Your task to perform on an android device: empty trash in the gmail app Image 0: 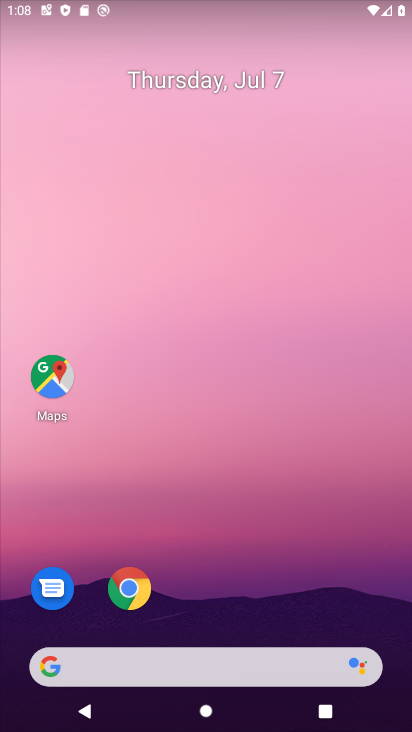
Step 0: drag from (179, 651) to (184, 254)
Your task to perform on an android device: empty trash in the gmail app Image 1: 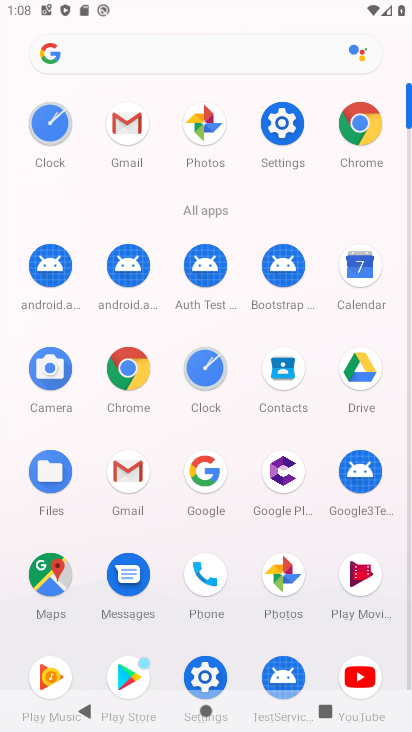
Step 1: click (134, 115)
Your task to perform on an android device: empty trash in the gmail app Image 2: 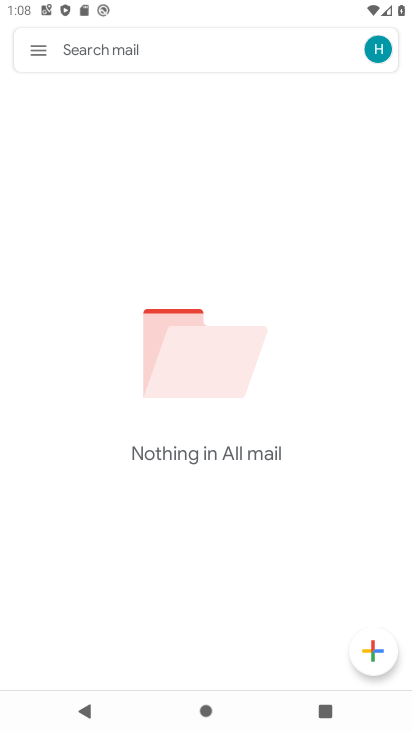
Step 2: click (29, 43)
Your task to perform on an android device: empty trash in the gmail app Image 3: 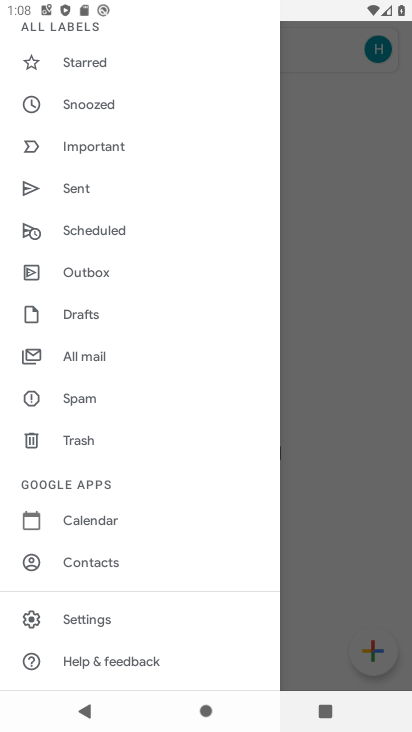
Step 3: click (100, 437)
Your task to perform on an android device: empty trash in the gmail app Image 4: 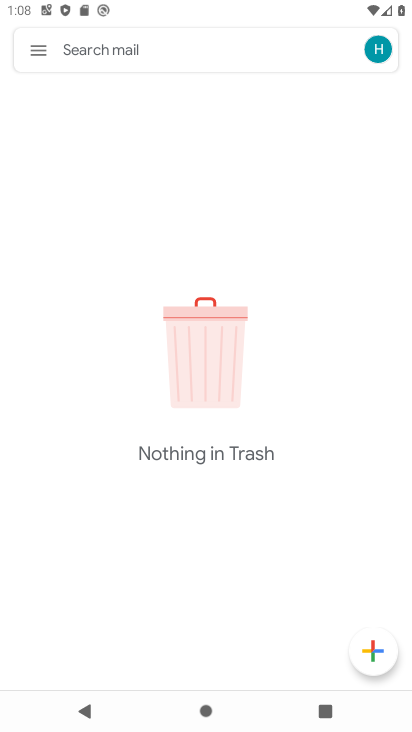
Step 4: task complete